Your task to perform on an android device: Go to internet settings Image 0: 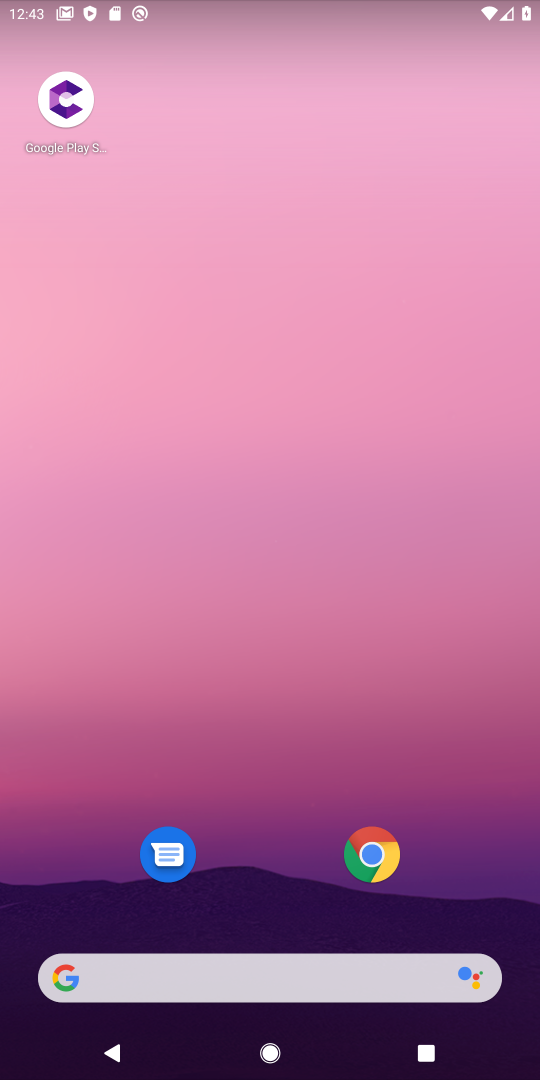
Step 0: drag from (310, 715) to (320, 34)
Your task to perform on an android device: Go to internet settings Image 1: 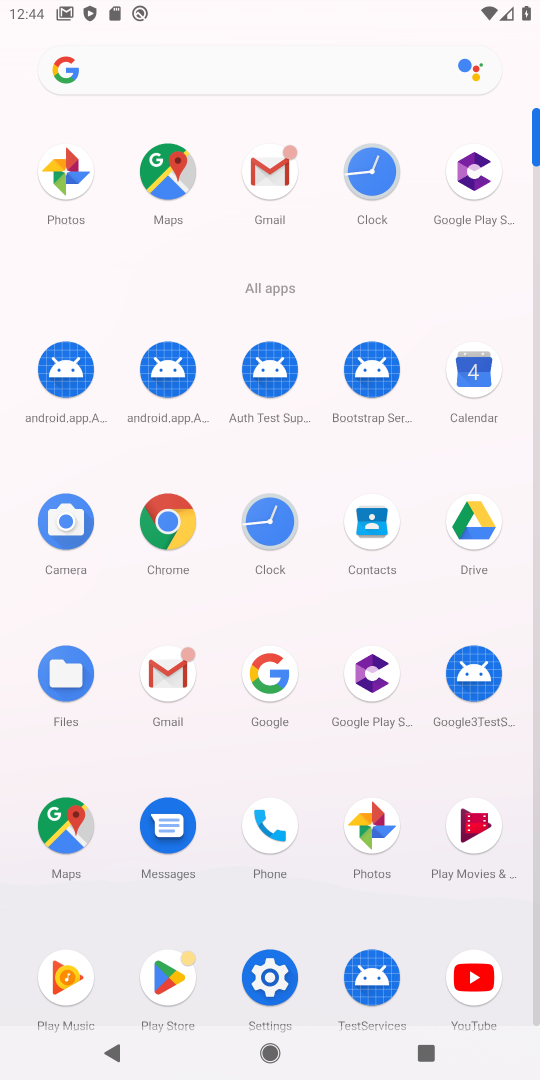
Step 1: click (269, 980)
Your task to perform on an android device: Go to internet settings Image 2: 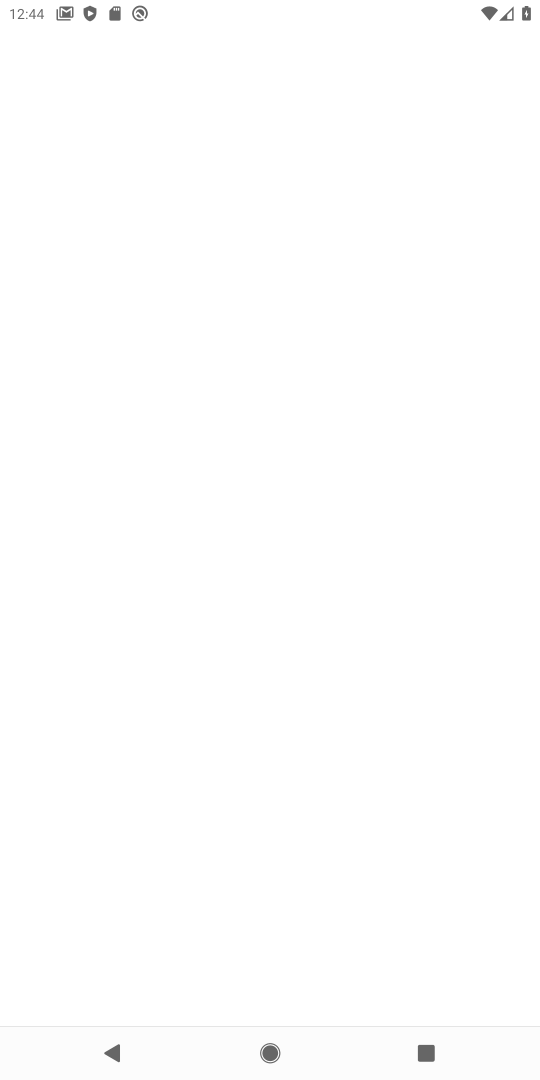
Step 2: click (269, 980)
Your task to perform on an android device: Go to internet settings Image 3: 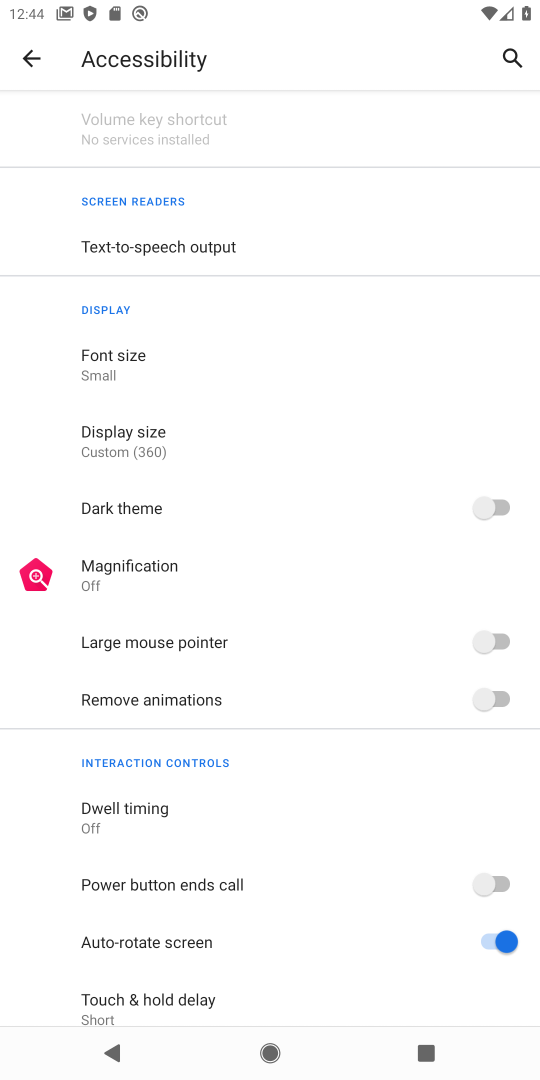
Step 3: click (22, 64)
Your task to perform on an android device: Go to internet settings Image 4: 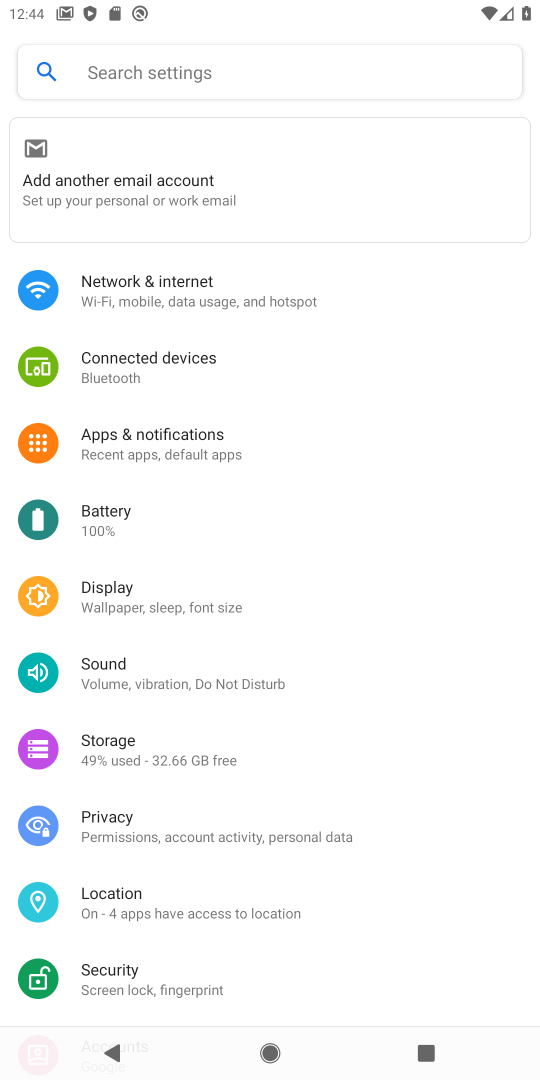
Step 4: click (140, 286)
Your task to perform on an android device: Go to internet settings Image 5: 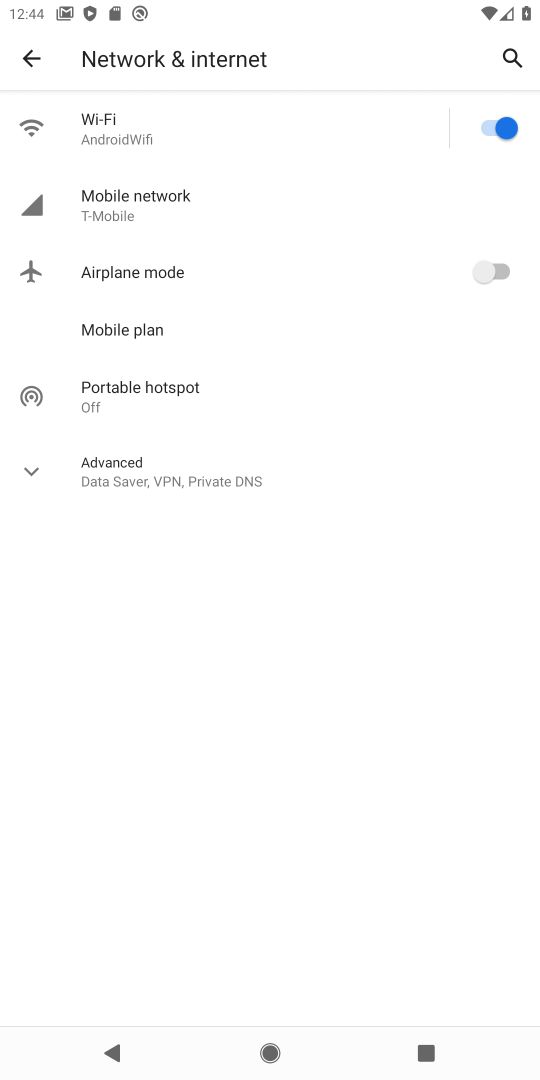
Step 5: task complete